Your task to perform on an android device: turn pop-ups off in chrome Image 0: 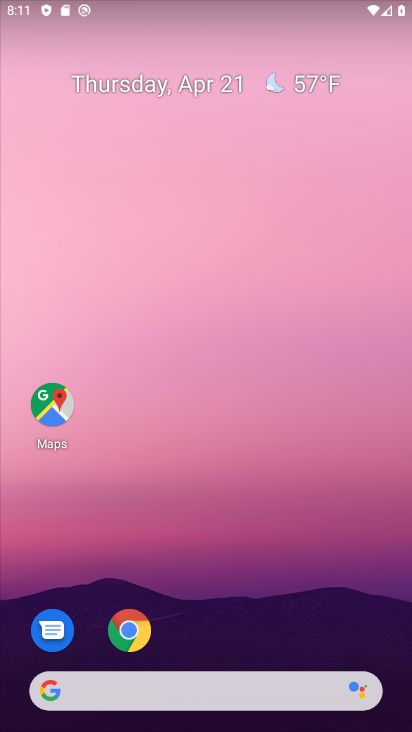
Step 0: drag from (332, 457) to (332, 289)
Your task to perform on an android device: turn pop-ups off in chrome Image 1: 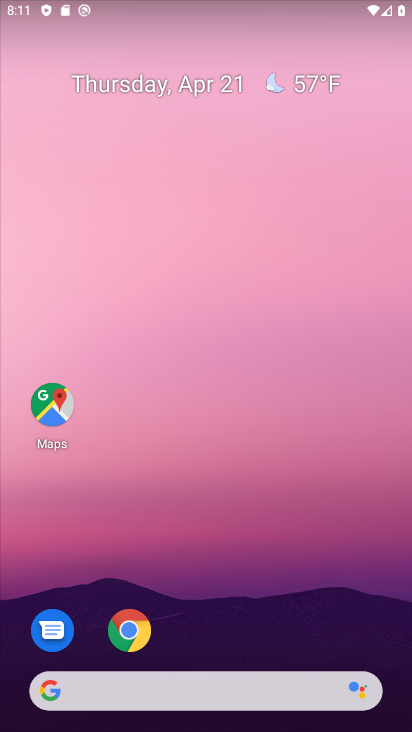
Step 1: drag from (277, 611) to (274, 179)
Your task to perform on an android device: turn pop-ups off in chrome Image 2: 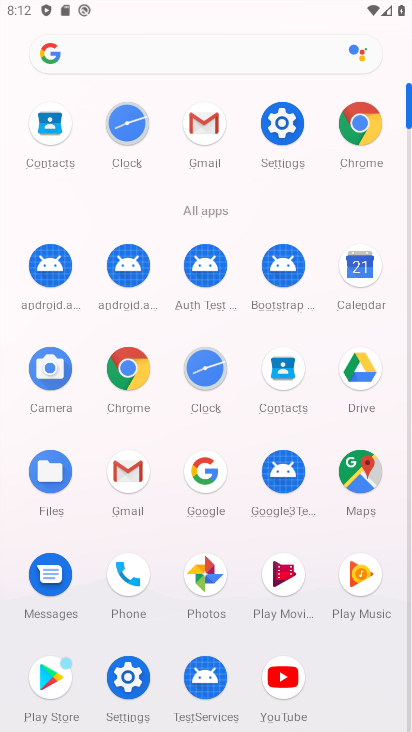
Step 2: click (128, 365)
Your task to perform on an android device: turn pop-ups off in chrome Image 3: 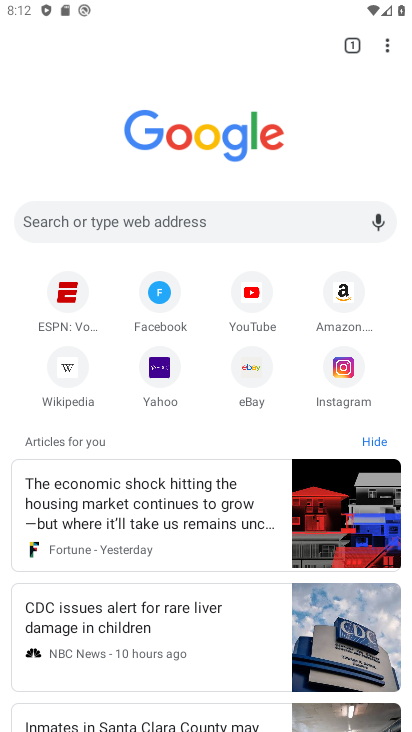
Step 3: click (385, 40)
Your task to perform on an android device: turn pop-ups off in chrome Image 4: 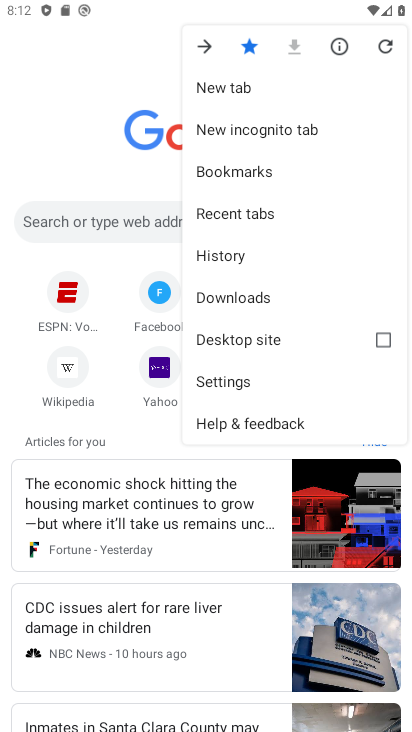
Step 4: click (245, 390)
Your task to perform on an android device: turn pop-ups off in chrome Image 5: 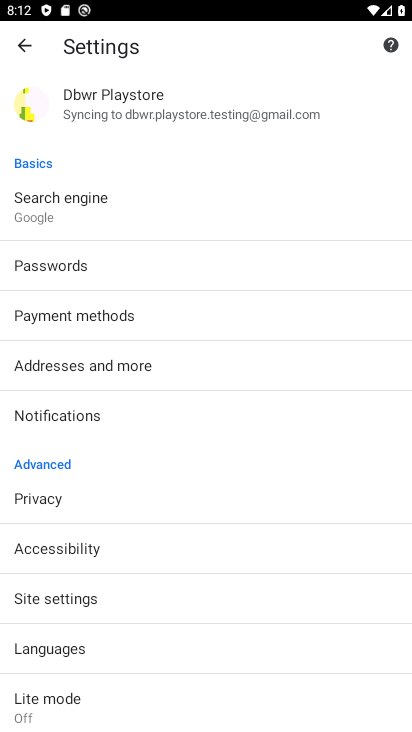
Step 5: click (131, 598)
Your task to perform on an android device: turn pop-ups off in chrome Image 6: 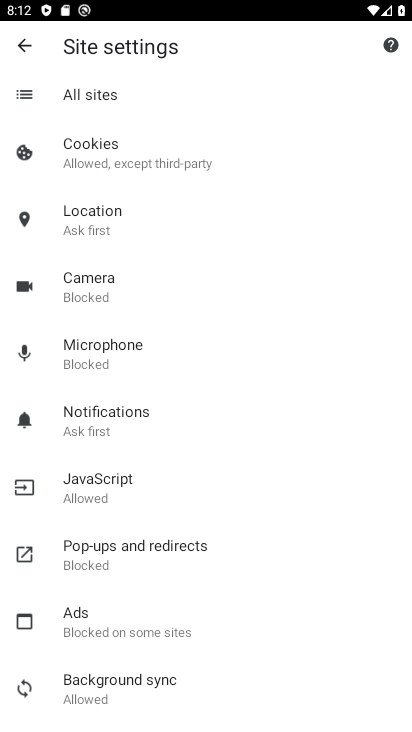
Step 6: click (173, 550)
Your task to perform on an android device: turn pop-ups off in chrome Image 7: 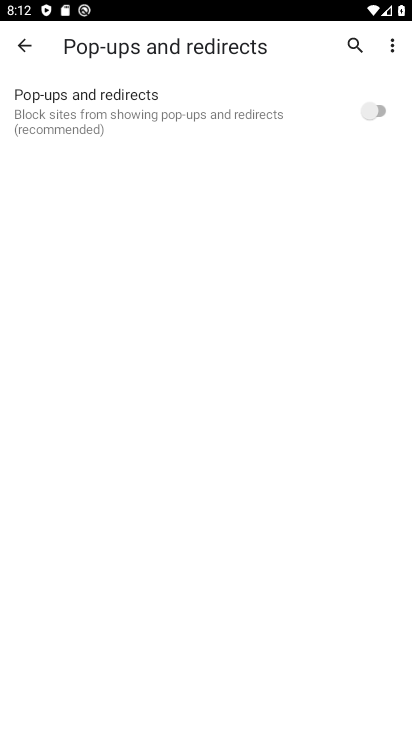
Step 7: task complete